Your task to perform on an android device: change your default location settings in chrome Image 0: 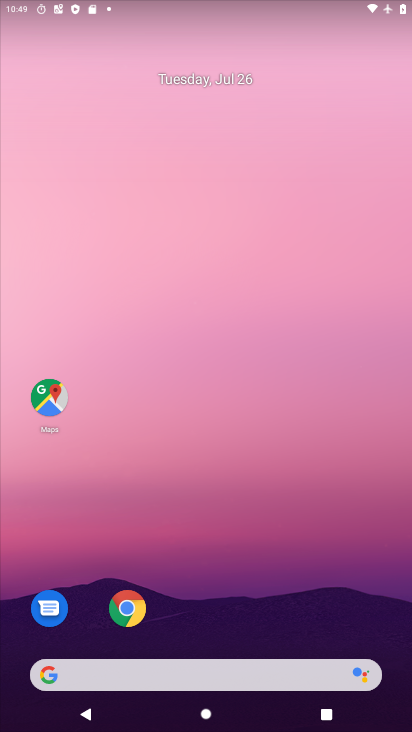
Step 0: click (122, 610)
Your task to perform on an android device: change your default location settings in chrome Image 1: 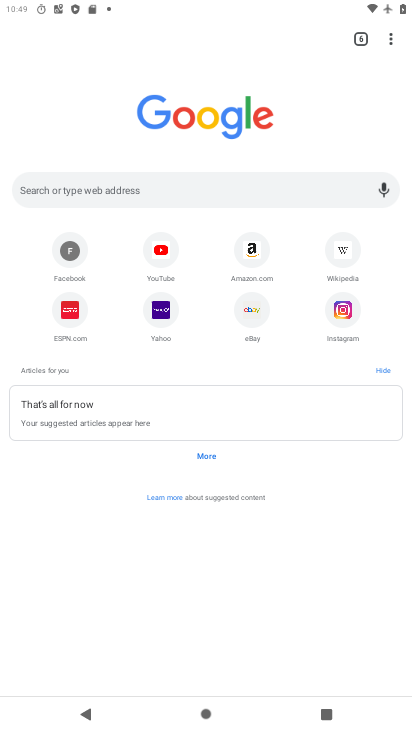
Step 1: click (385, 43)
Your task to perform on an android device: change your default location settings in chrome Image 2: 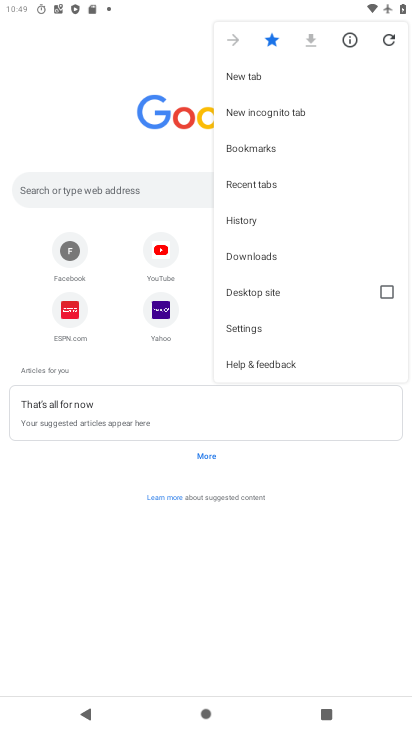
Step 2: click (258, 325)
Your task to perform on an android device: change your default location settings in chrome Image 3: 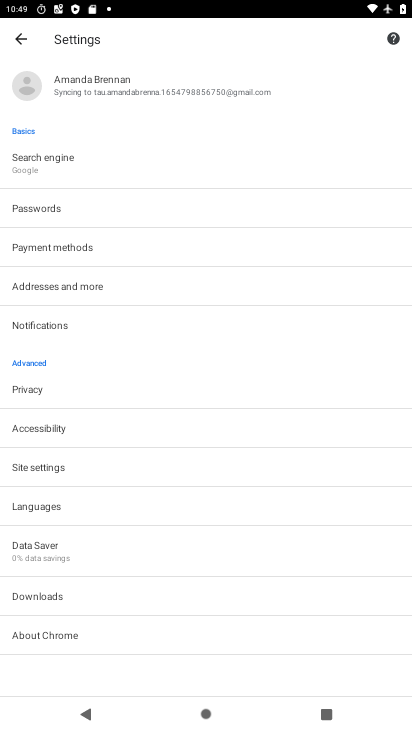
Step 3: click (65, 465)
Your task to perform on an android device: change your default location settings in chrome Image 4: 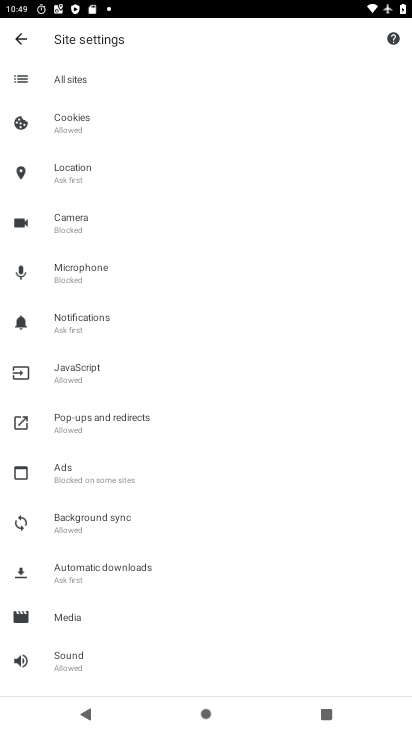
Step 4: click (109, 182)
Your task to perform on an android device: change your default location settings in chrome Image 5: 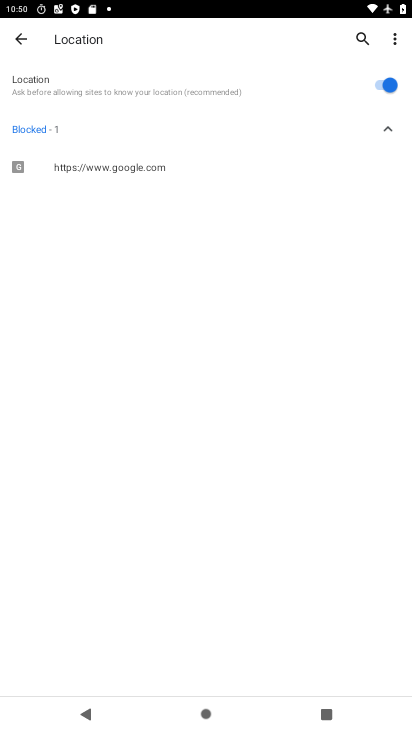
Step 5: click (380, 82)
Your task to perform on an android device: change your default location settings in chrome Image 6: 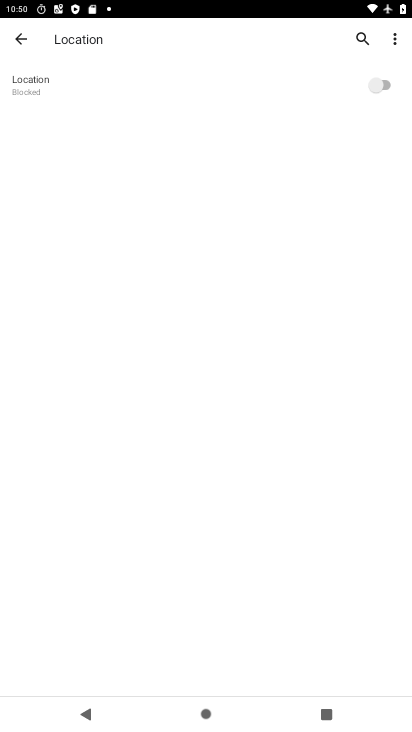
Step 6: task complete